Your task to perform on an android device: check data usage Image 0: 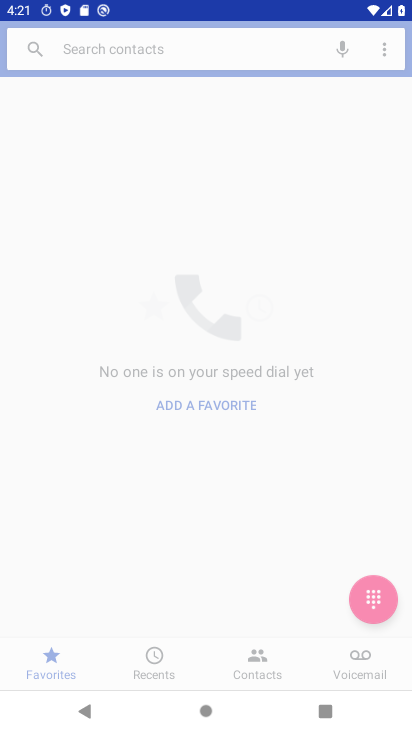
Step 0: click (139, 584)
Your task to perform on an android device: check data usage Image 1: 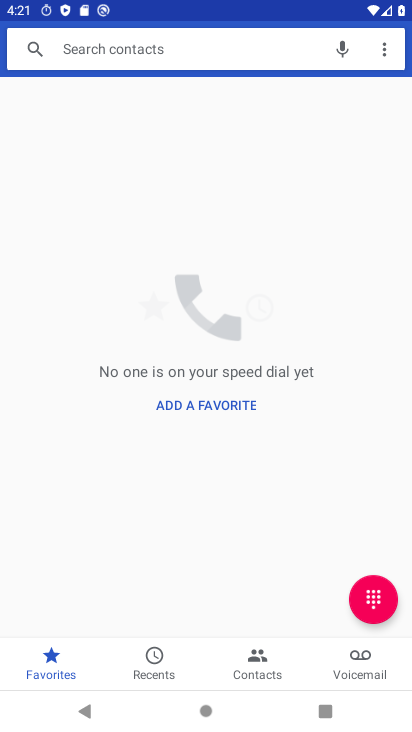
Step 1: press home button
Your task to perform on an android device: check data usage Image 2: 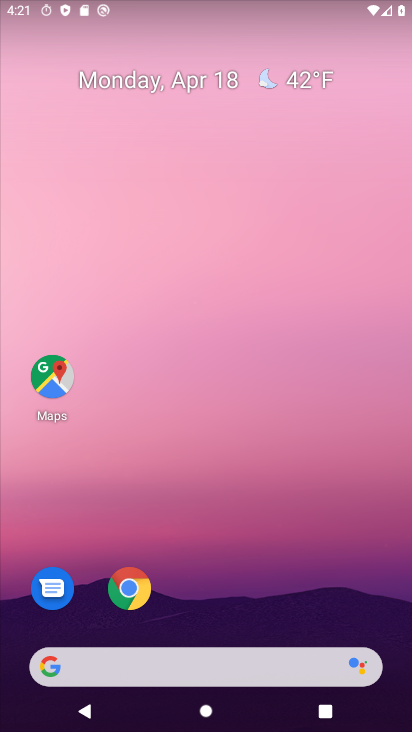
Step 2: drag from (362, 7) to (178, 690)
Your task to perform on an android device: check data usage Image 3: 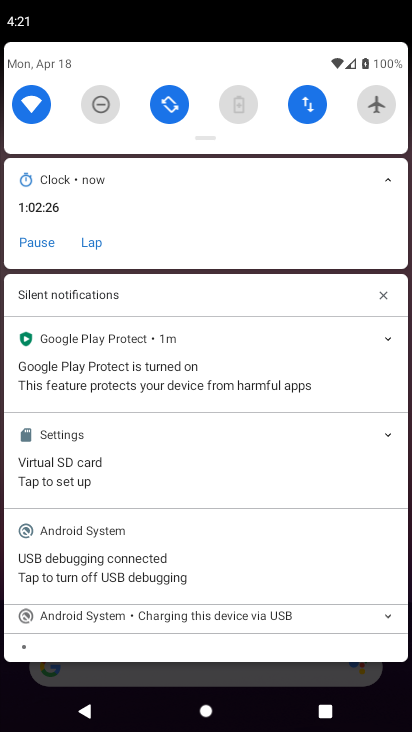
Step 3: drag from (230, 88) to (187, 683)
Your task to perform on an android device: check data usage Image 4: 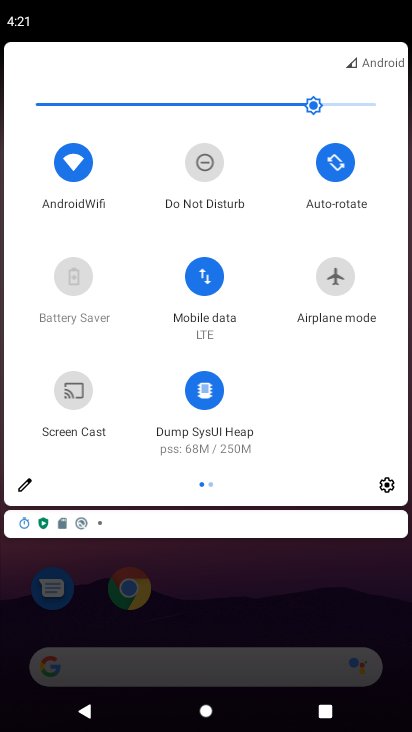
Step 4: click (391, 479)
Your task to perform on an android device: check data usage Image 5: 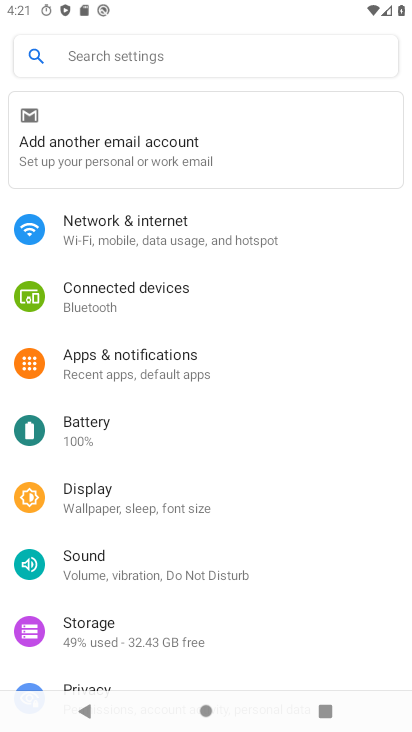
Step 5: click (142, 232)
Your task to perform on an android device: check data usage Image 6: 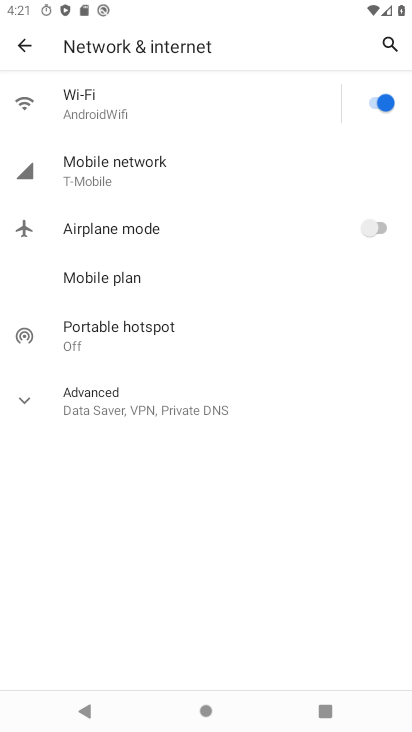
Step 6: click (206, 187)
Your task to perform on an android device: check data usage Image 7: 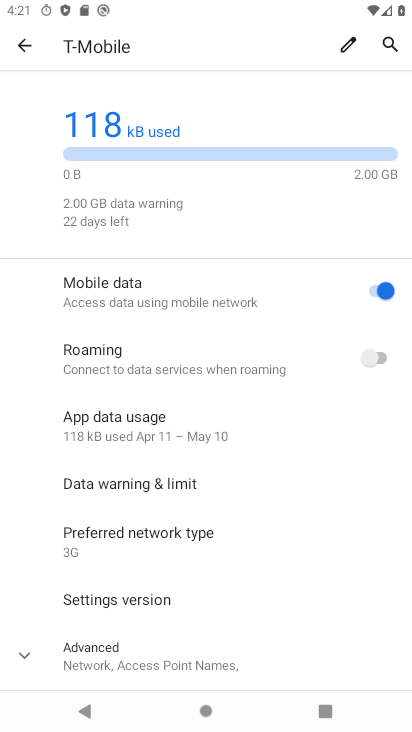
Step 7: task complete